Your task to perform on an android device: search for starred emails in the gmail app Image 0: 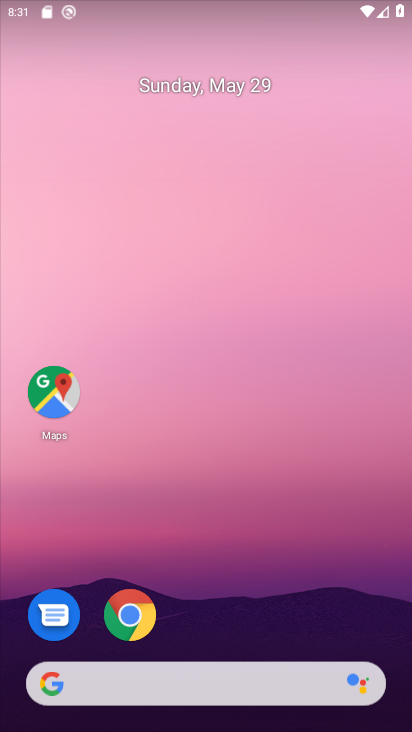
Step 0: drag from (230, 623) to (262, 11)
Your task to perform on an android device: search for starred emails in the gmail app Image 1: 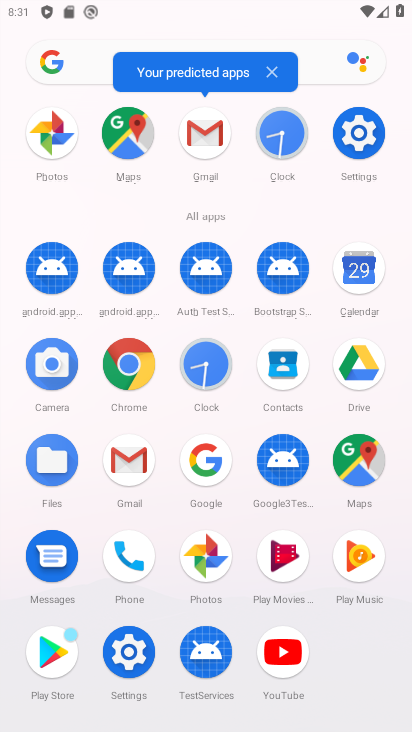
Step 1: click (198, 135)
Your task to perform on an android device: search for starred emails in the gmail app Image 2: 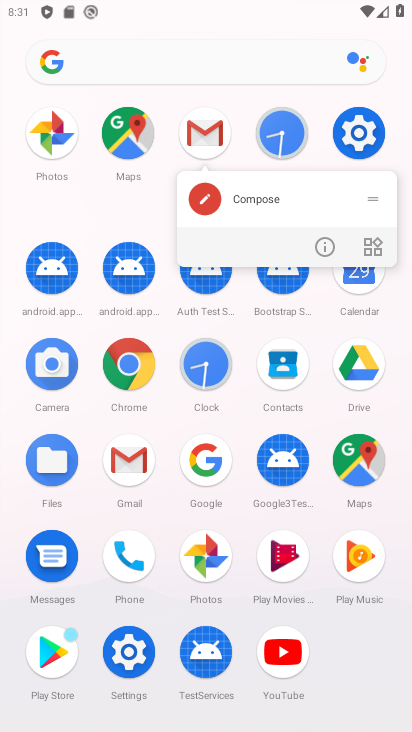
Step 2: click (229, 103)
Your task to perform on an android device: search for starred emails in the gmail app Image 3: 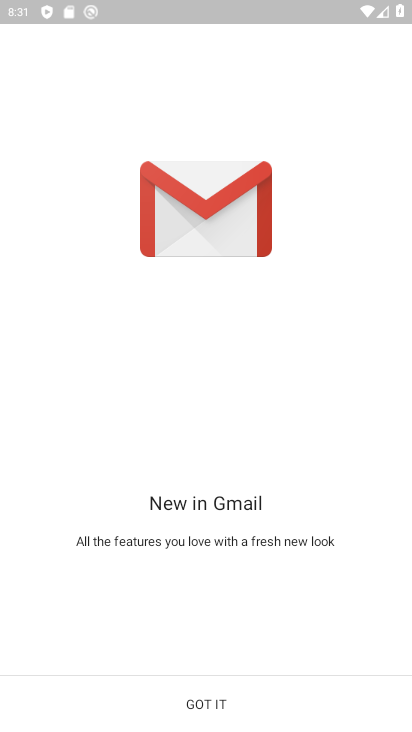
Step 3: click (268, 700)
Your task to perform on an android device: search for starred emails in the gmail app Image 4: 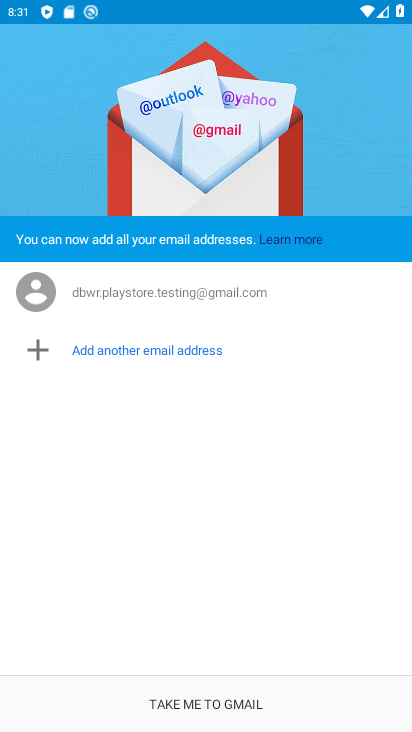
Step 4: click (243, 695)
Your task to perform on an android device: search for starred emails in the gmail app Image 5: 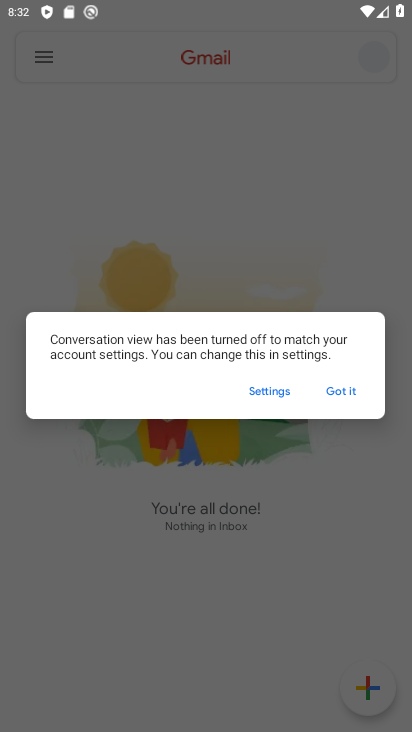
Step 5: click (44, 58)
Your task to perform on an android device: search for starred emails in the gmail app Image 6: 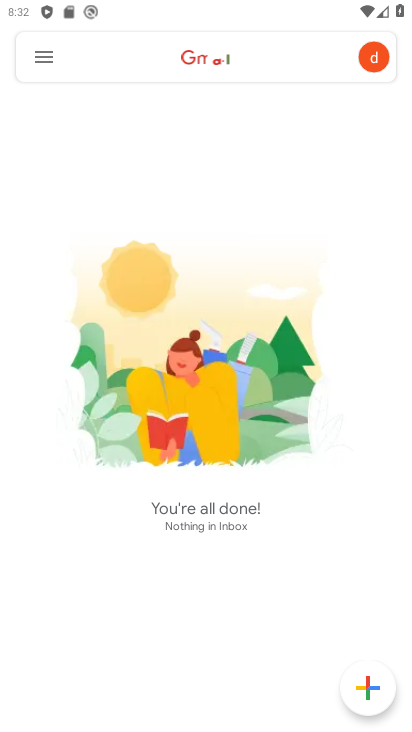
Step 6: click (326, 391)
Your task to perform on an android device: search for starred emails in the gmail app Image 7: 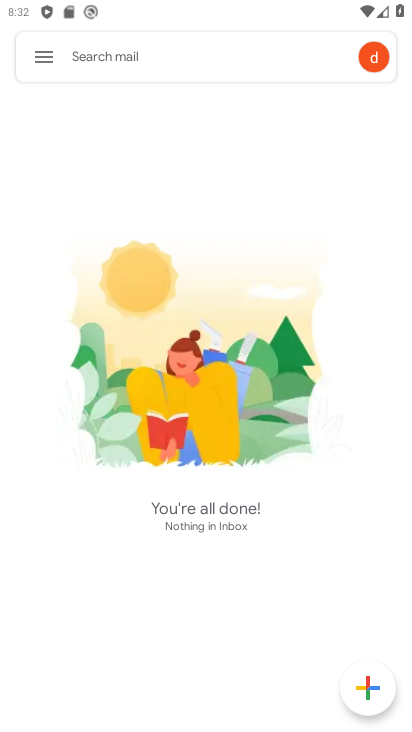
Step 7: click (26, 66)
Your task to perform on an android device: search for starred emails in the gmail app Image 8: 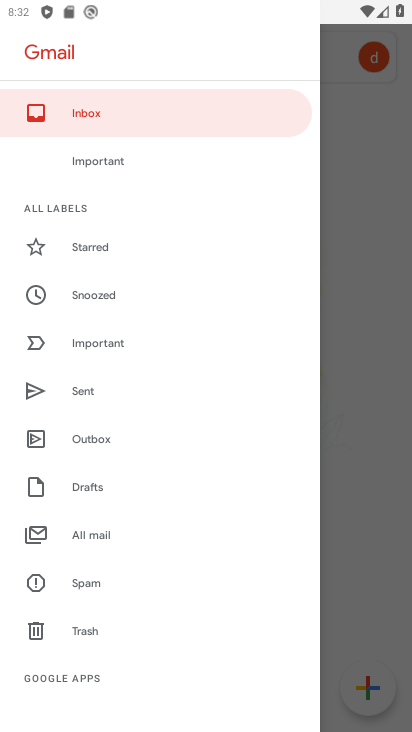
Step 8: click (104, 248)
Your task to perform on an android device: search for starred emails in the gmail app Image 9: 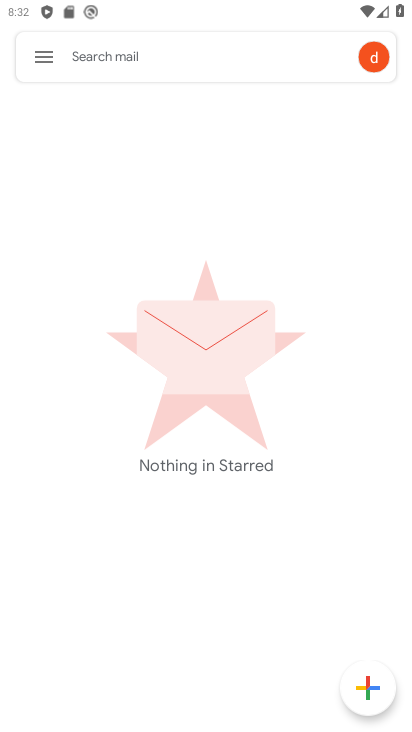
Step 9: task complete